Your task to perform on an android device: Go to Wikipedia Image 0: 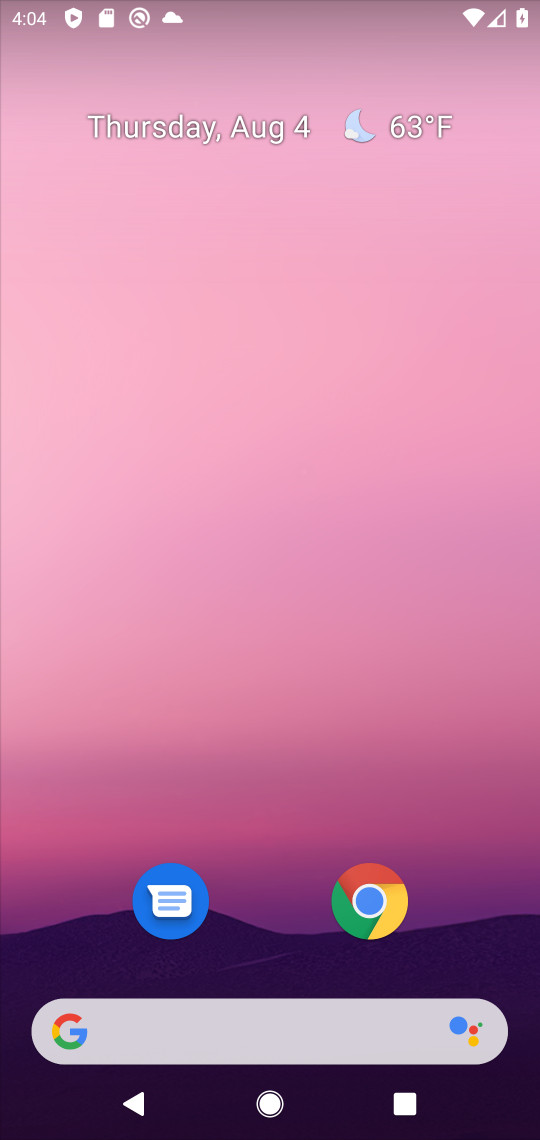
Step 0: drag from (289, 925) to (361, 173)
Your task to perform on an android device: Go to Wikipedia Image 1: 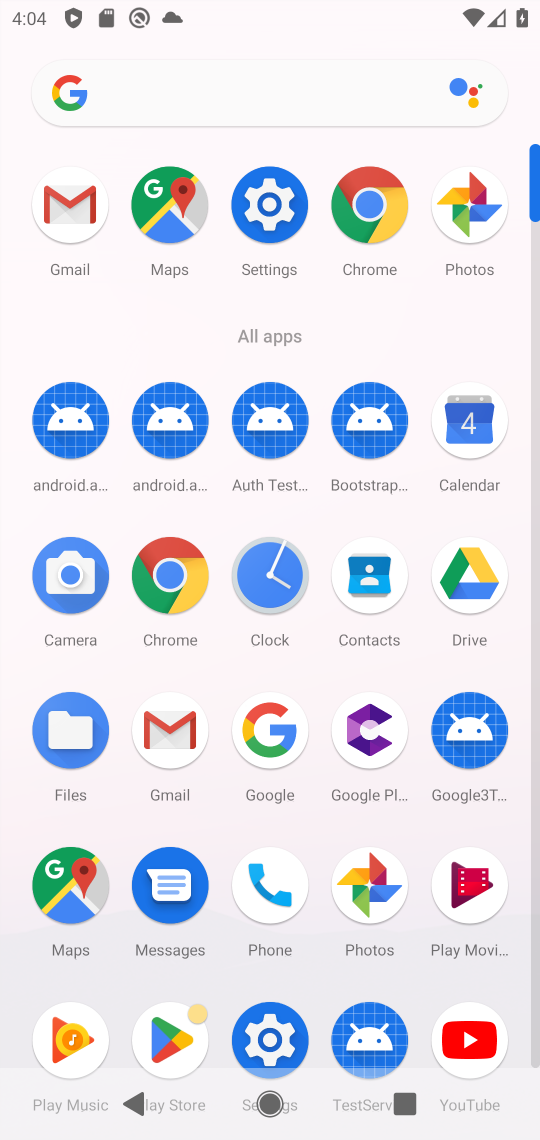
Step 1: click (181, 569)
Your task to perform on an android device: Go to Wikipedia Image 2: 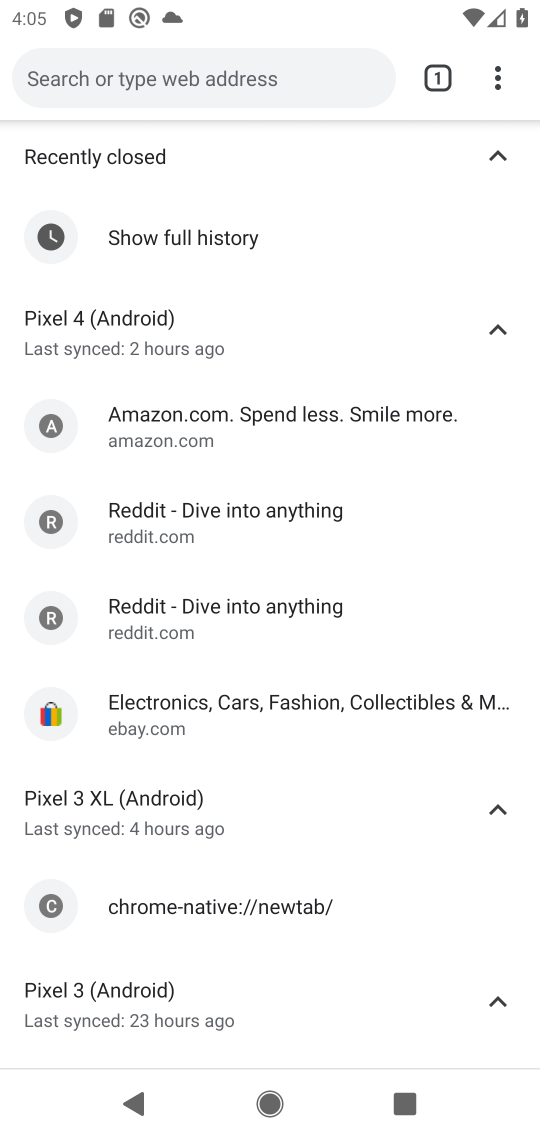
Step 2: click (309, 81)
Your task to perform on an android device: Go to Wikipedia Image 3: 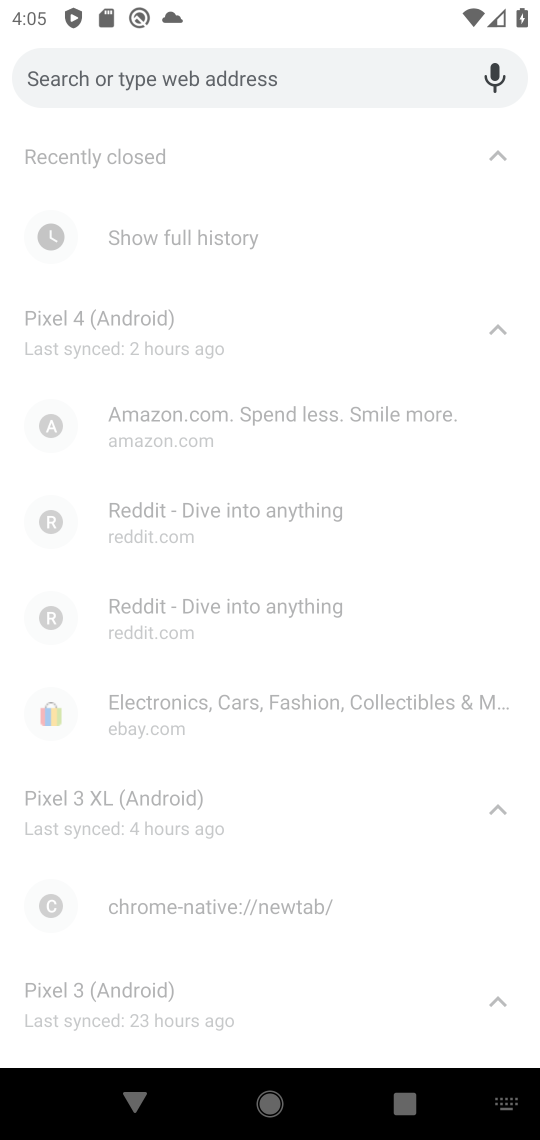
Step 3: type "wikipedia"
Your task to perform on an android device: Go to Wikipedia Image 4: 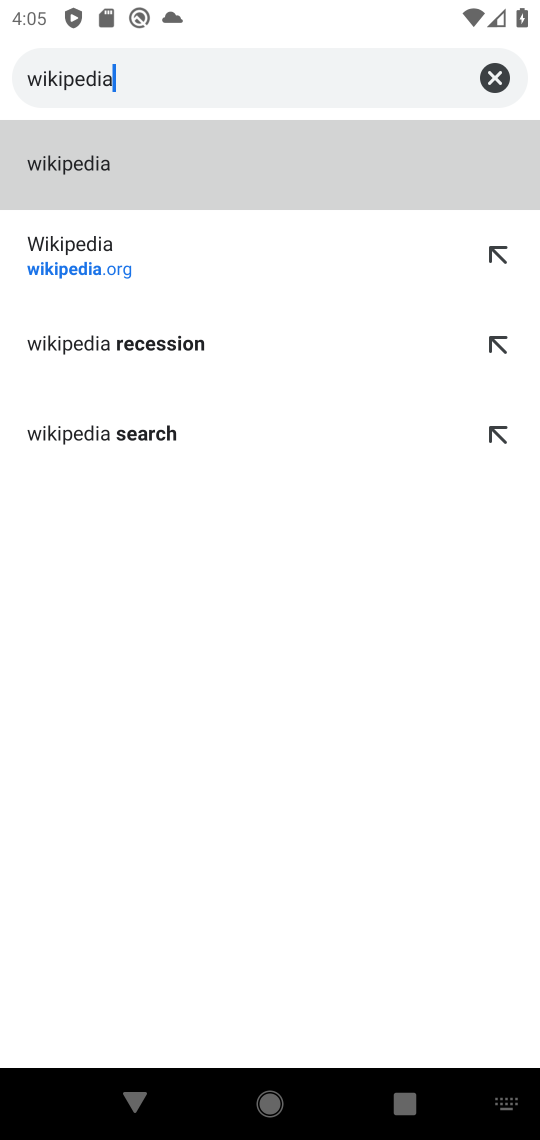
Step 4: click (74, 268)
Your task to perform on an android device: Go to Wikipedia Image 5: 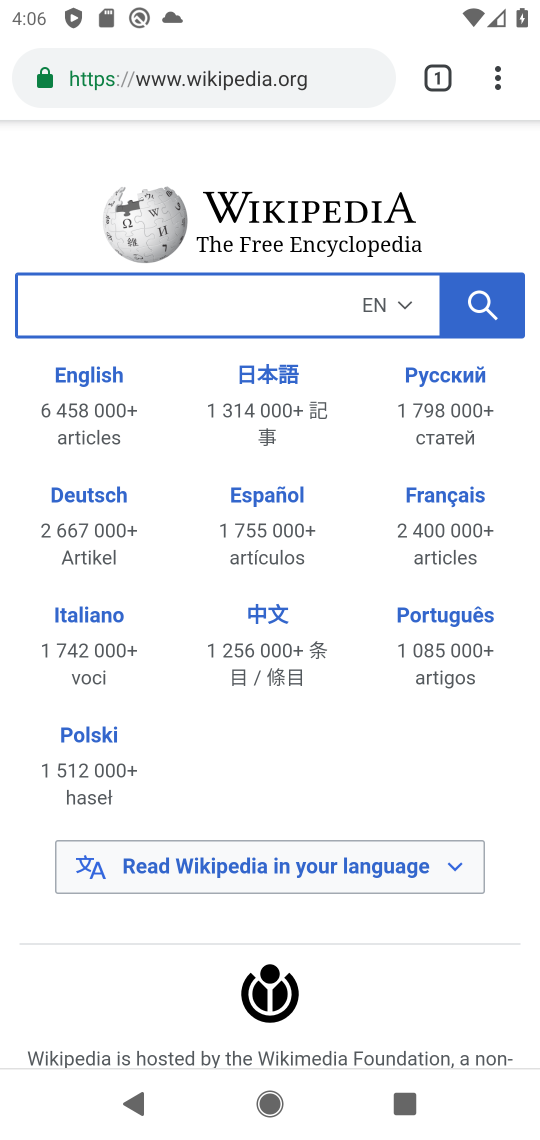
Step 5: task complete